Your task to perform on an android device: Open Chrome and go to the settings page Image 0: 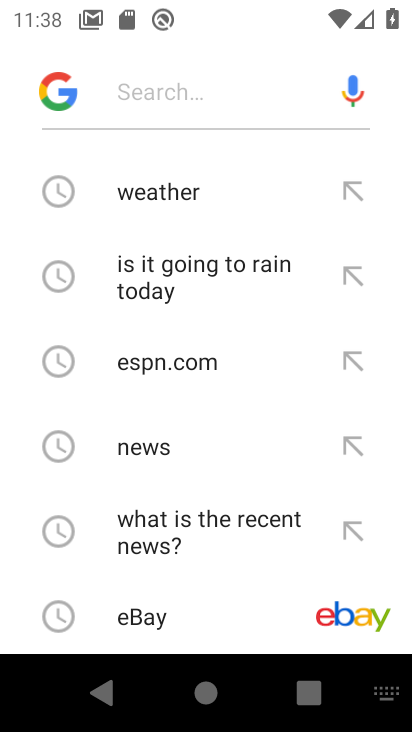
Step 0: press back button
Your task to perform on an android device: Open Chrome and go to the settings page Image 1: 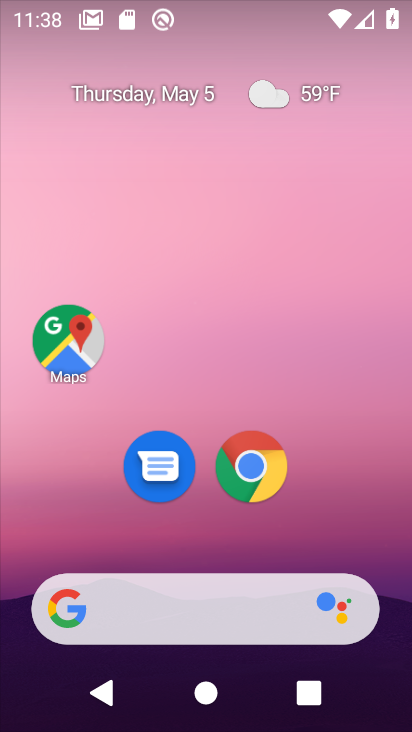
Step 1: click (271, 480)
Your task to perform on an android device: Open Chrome and go to the settings page Image 2: 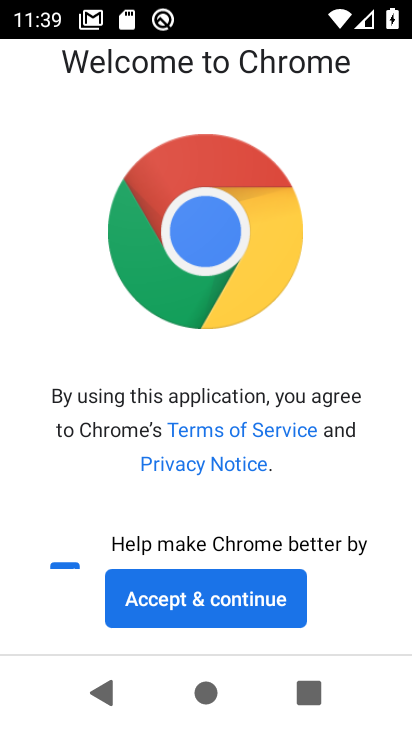
Step 2: click (249, 596)
Your task to perform on an android device: Open Chrome and go to the settings page Image 3: 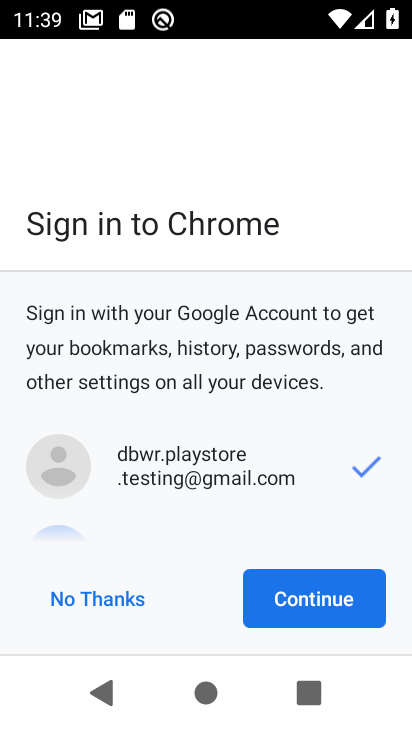
Step 3: click (309, 618)
Your task to perform on an android device: Open Chrome and go to the settings page Image 4: 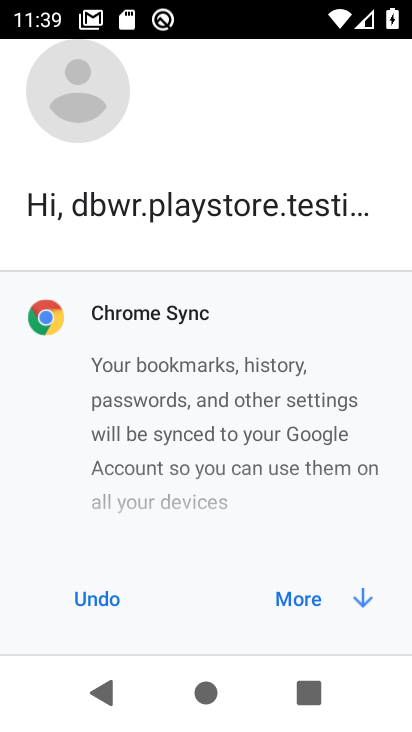
Step 4: click (305, 605)
Your task to perform on an android device: Open Chrome and go to the settings page Image 5: 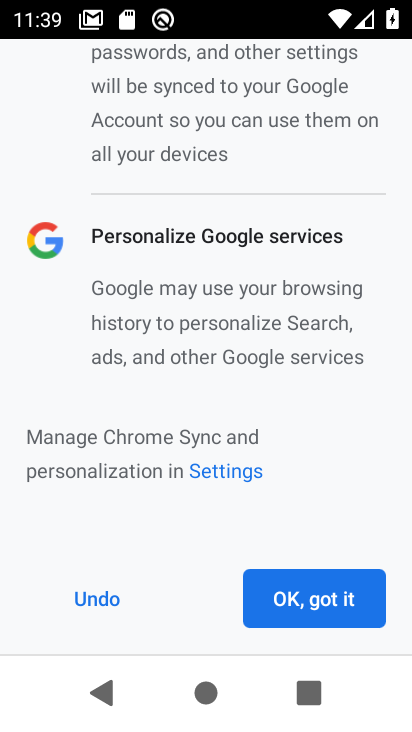
Step 5: click (281, 583)
Your task to perform on an android device: Open Chrome and go to the settings page Image 6: 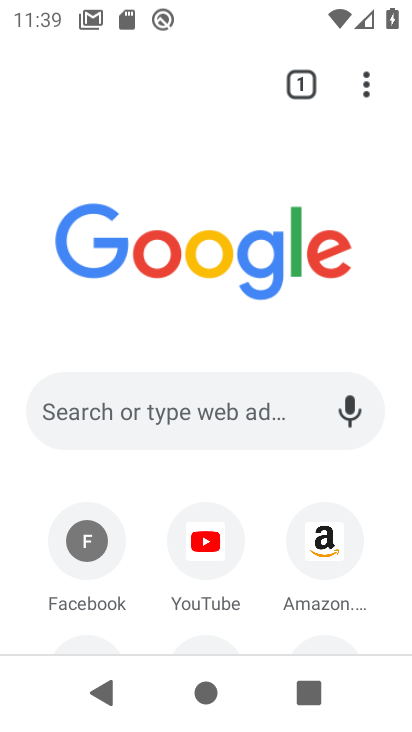
Step 6: click (375, 111)
Your task to perform on an android device: Open Chrome and go to the settings page Image 7: 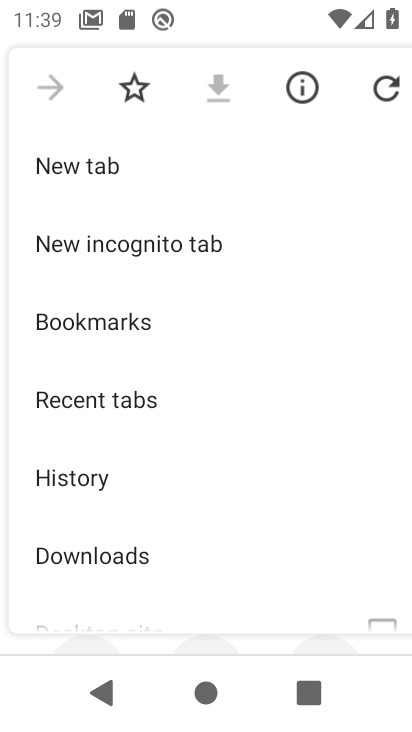
Step 7: drag from (280, 550) to (228, 255)
Your task to perform on an android device: Open Chrome and go to the settings page Image 8: 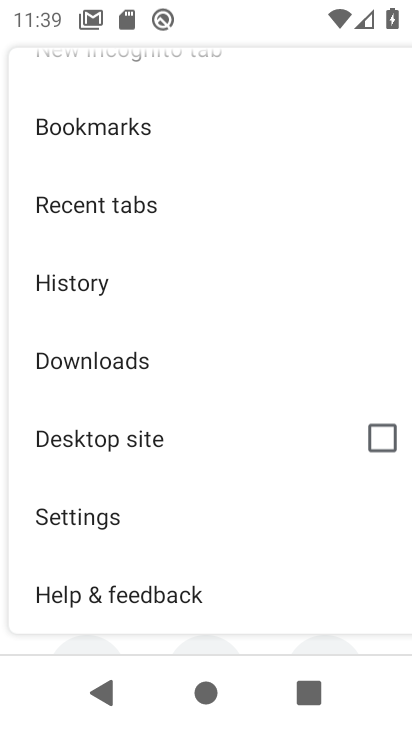
Step 8: click (250, 526)
Your task to perform on an android device: Open Chrome and go to the settings page Image 9: 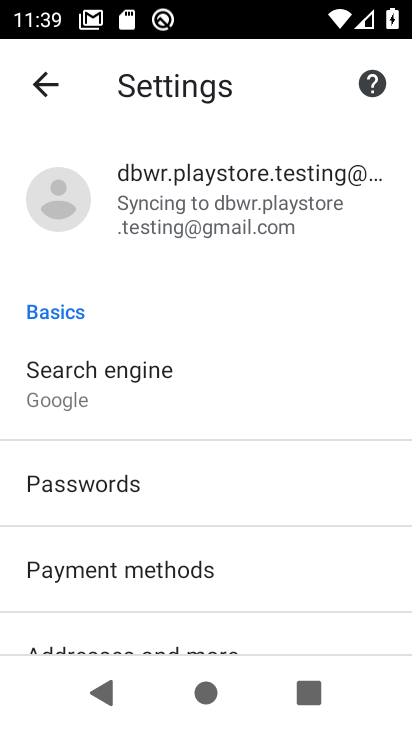
Step 9: task complete